Your task to perform on an android device: Open maps Image 0: 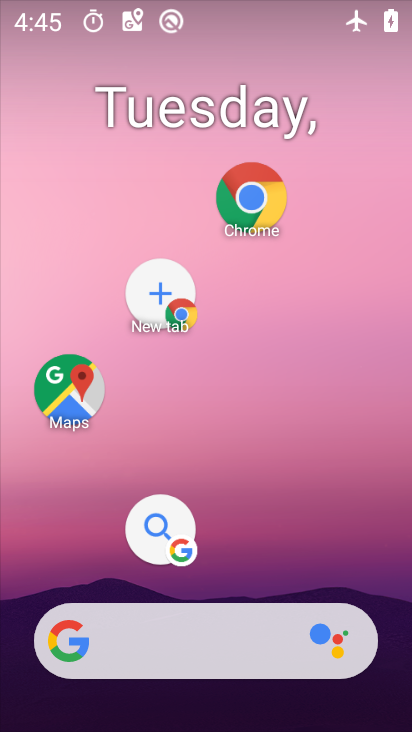
Step 0: click (75, 381)
Your task to perform on an android device: Open maps Image 1: 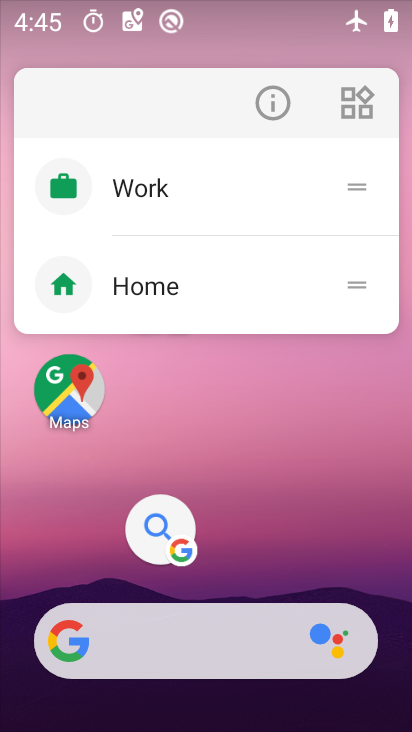
Step 1: click (70, 395)
Your task to perform on an android device: Open maps Image 2: 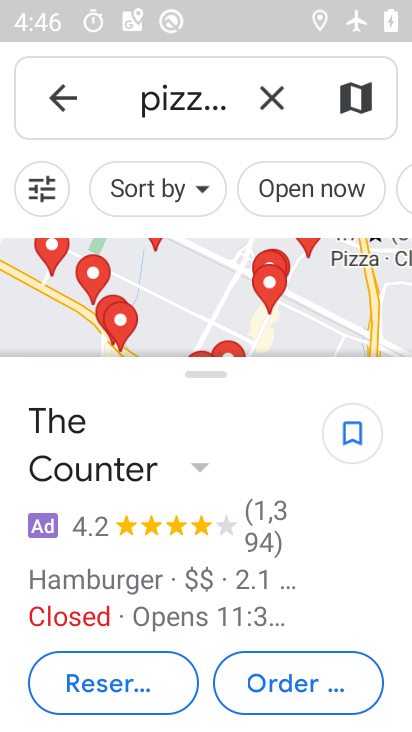
Step 2: click (272, 98)
Your task to perform on an android device: Open maps Image 3: 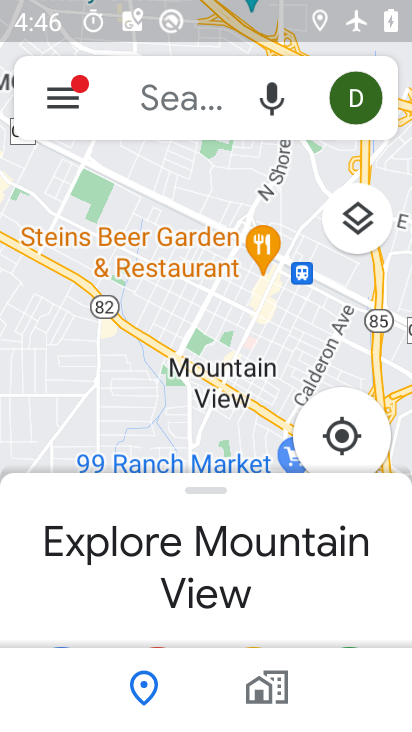
Step 3: task complete